Your task to perform on an android device: empty trash in google photos Image 0: 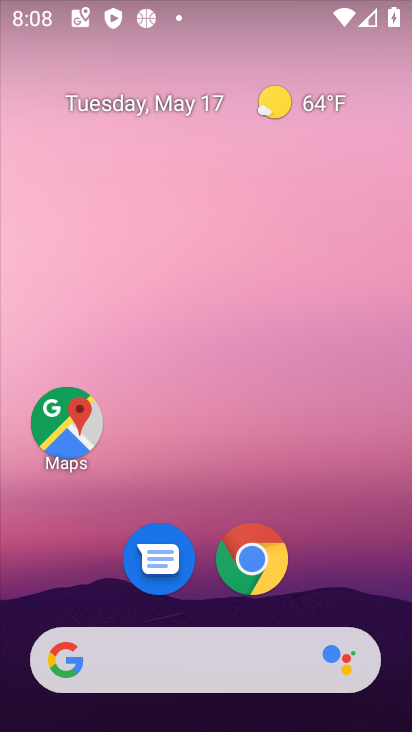
Step 0: drag from (227, 626) to (112, 9)
Your task to perform on an android device: empty trash in google photos Image 1: 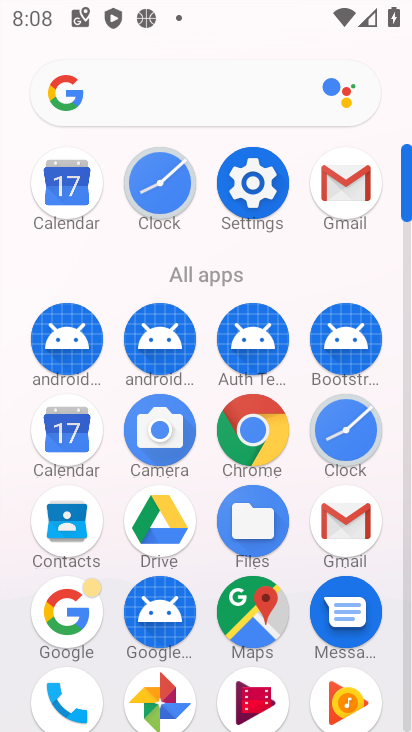
Step 1: click (152, 704)
Your task to perform on an android device: empty trash in google photos Image 2: 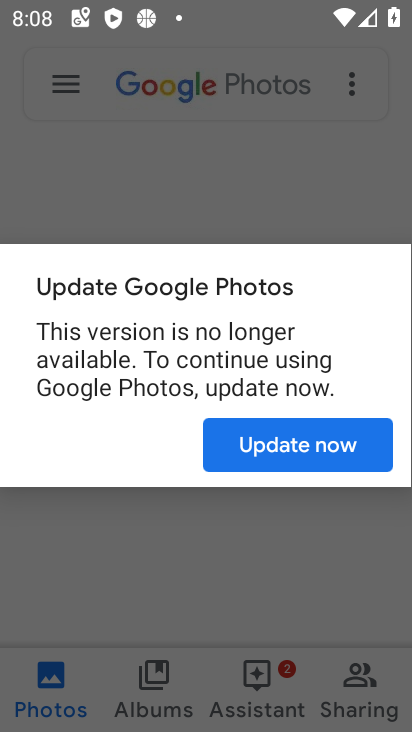
Step 2: click (304, 439)
Your task to perform on an android device: empty trash in google photos Image 3: 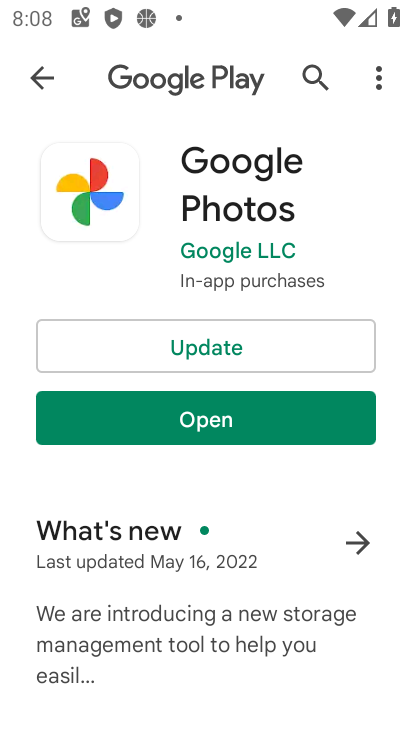
Step 3: click (293, 428)
Your task to perform on an android device: empty trash in google photos Image 4: 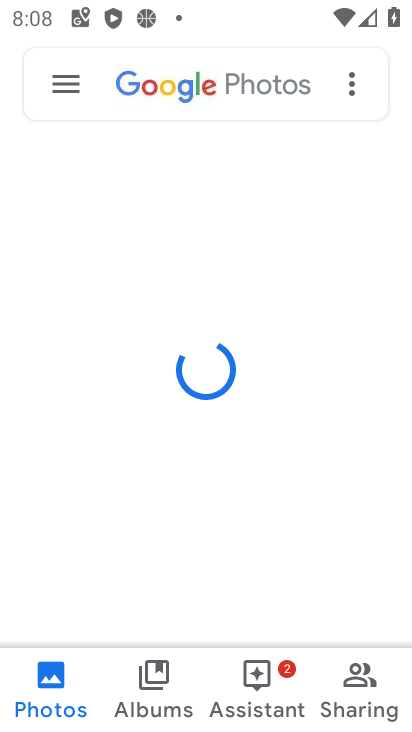
Step 4: click (45, 79)
Your task to perform on an android device: empty trash in google photos Image 5: 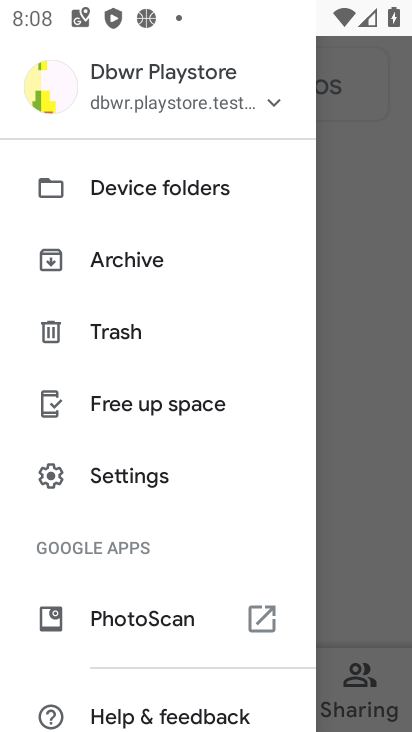
Step 5: click (95, 309)
Your task to perform on an android device: empty trash in google photos Image 6: 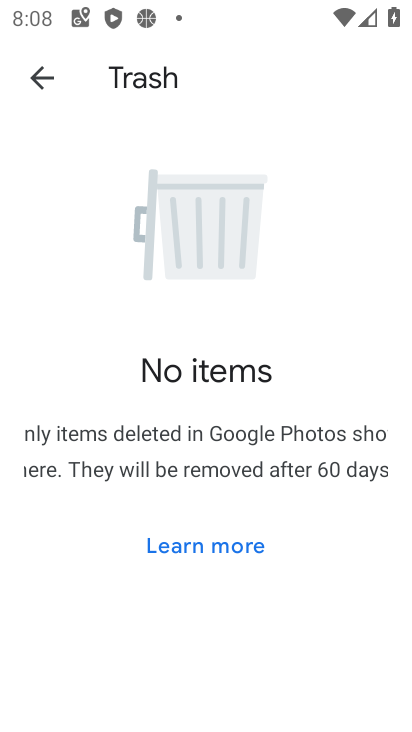
Step 6: task complete